Your task to perform on an android device: open chrome privacy settings Image 0: 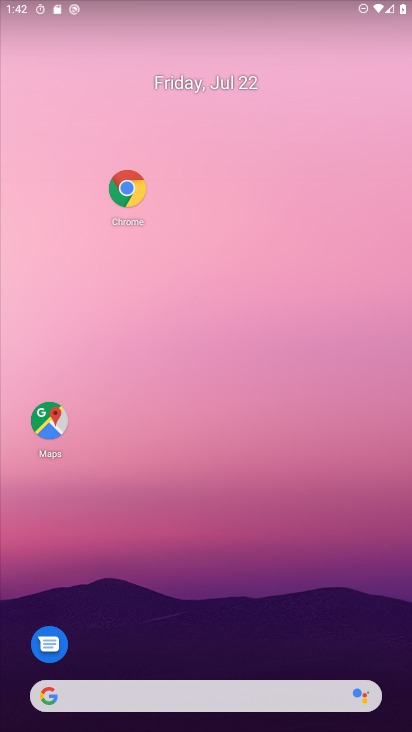
Step 0: click (128, 186)
Your task to perform on an android device: open chrome privacy settings Image 1: 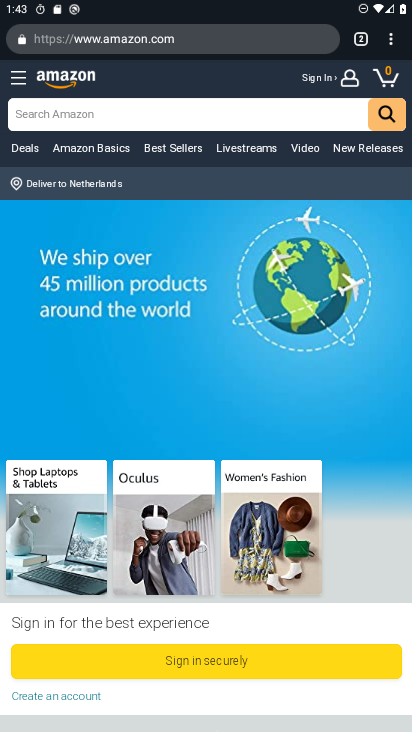
Step 1: click (397, 41)
Your task to perform on an android device: open chrome privacy settings Image 2: 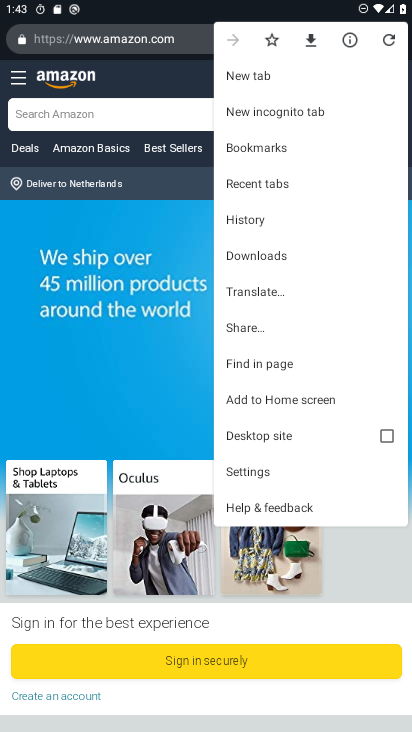
Step 2: click (288, 476)
Your task to perform on an android device: open chrome privacy settings Image 3: 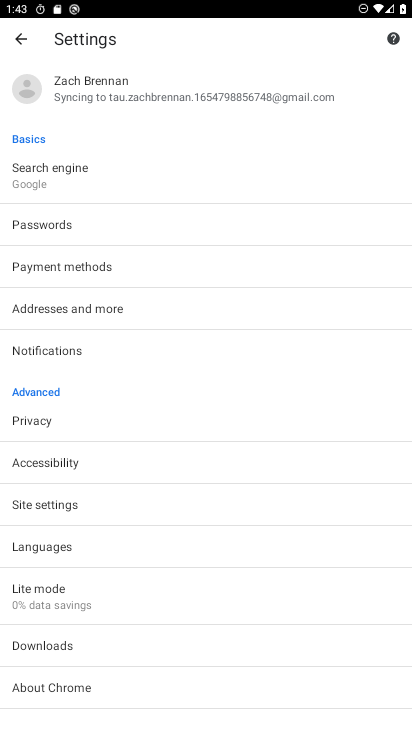
Step 3: click (83, 435)
Your task to perform on an android device: open chrome privacy settings Image 4: 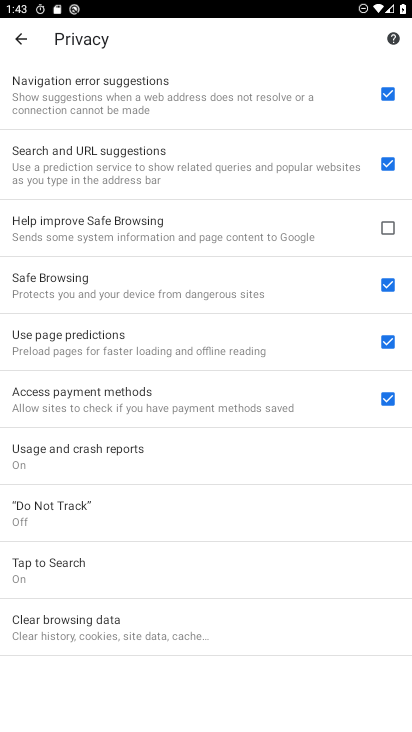
Step 4: task complete